Your task to perform on an android device: What is the news today? Image 0: 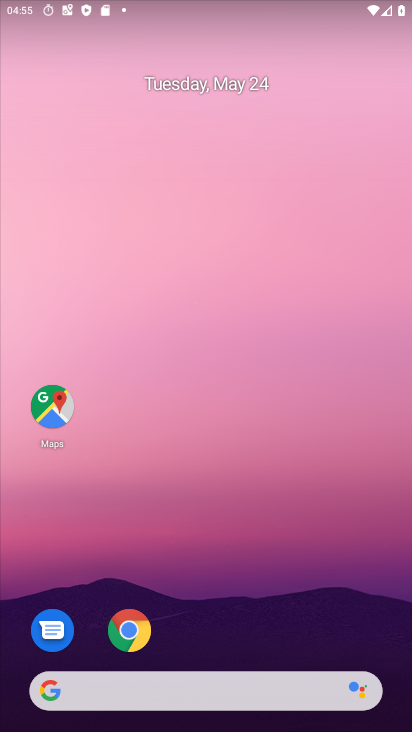
Step 0: click (193, 694)
Your task to perform on an android device: What is the news today? Image 1: 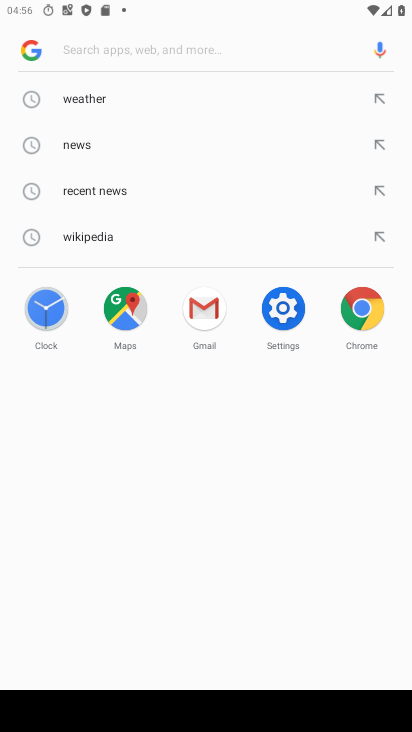
Step 1: click (92, 159)
Your task to perform on an android device: What is the news today? Image 2: 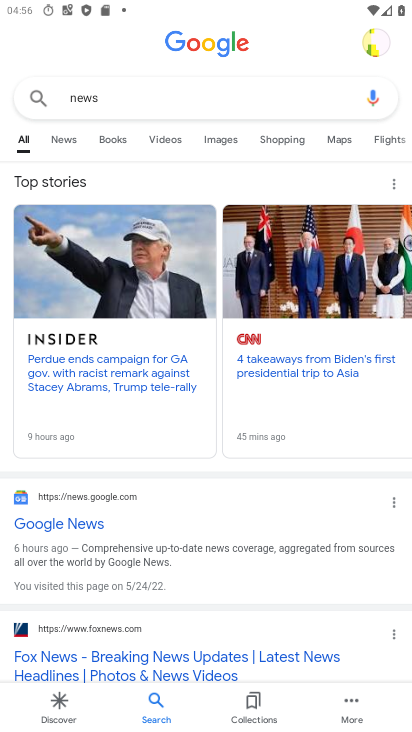
Step 2: task complete